Your task to perform on an android device: turn on the 24-hour format for clock Image 0: 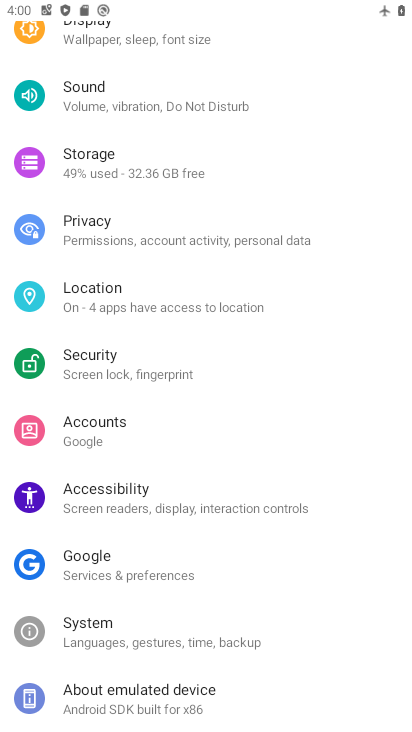
Step 0: press home button
Your task to perform on an android device: turn on the 24-hour format for clock Image 1: 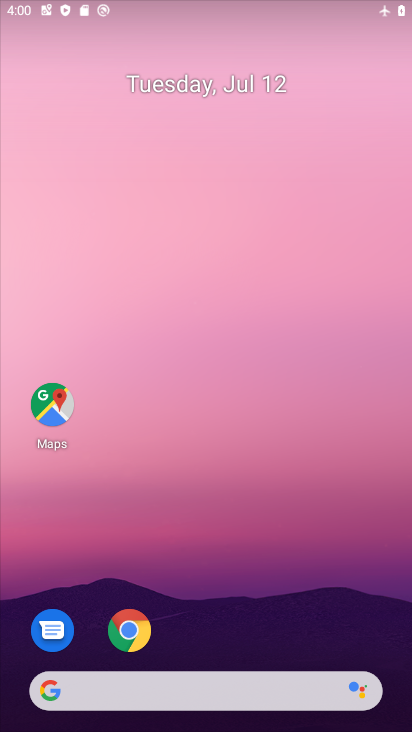
Step 1: drag from (280, 699) to (355, 8)
Your task to perform on an android device: turn on the 24-hour format for clock Image 2: 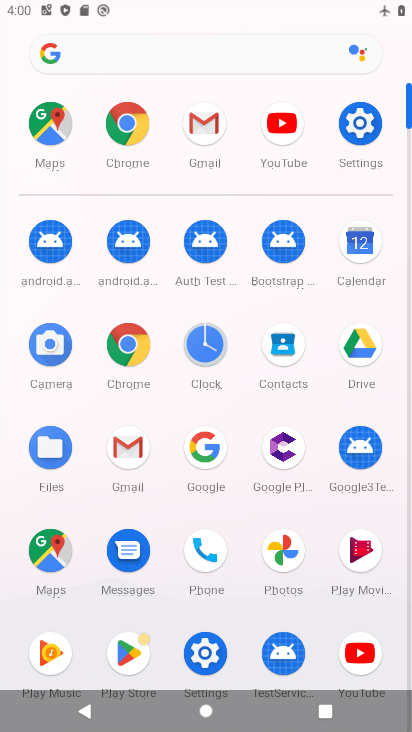
Step 2: click (204, 358)
Your task to perform on an android device: turn on the 24-hour format for clock Image 3: 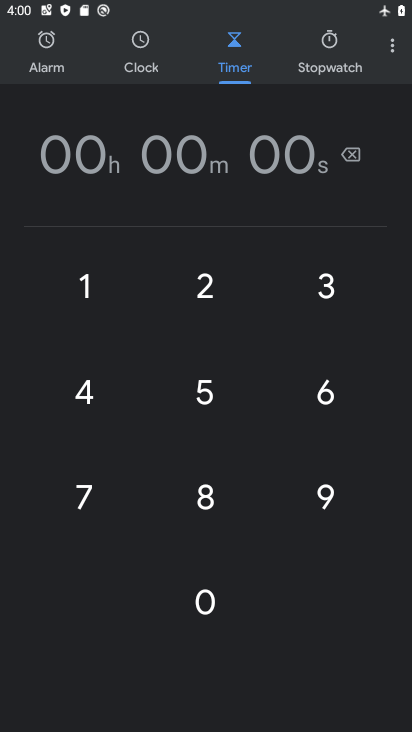
Step 3: click (390, 47)
Your task to perform on an android device: turn on the 24-hour format for clock Image 4: 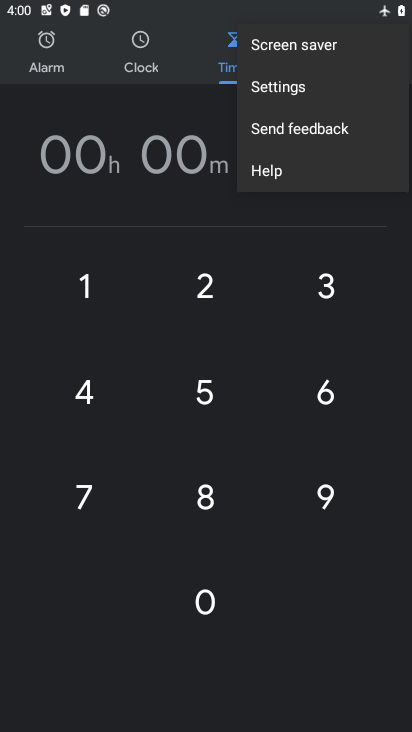
Step 4: click (293, 91)
Your task to perform on an android device: turn on the 24-hour format for clock Image 5: 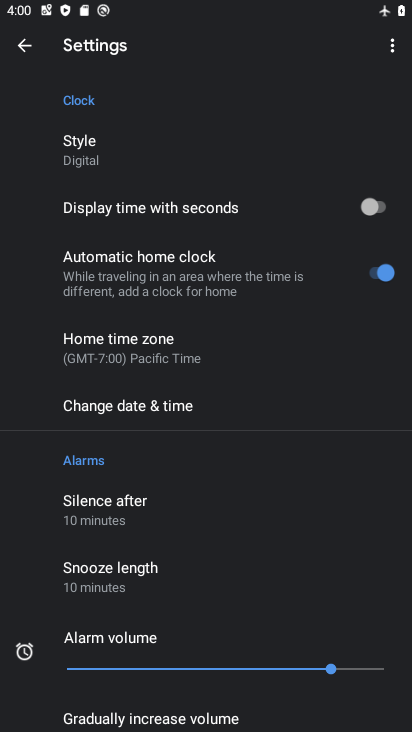
Step 5: click (152, 418)
Your task to perform on an android device: turn on the 24-hour format for clock Image 6: 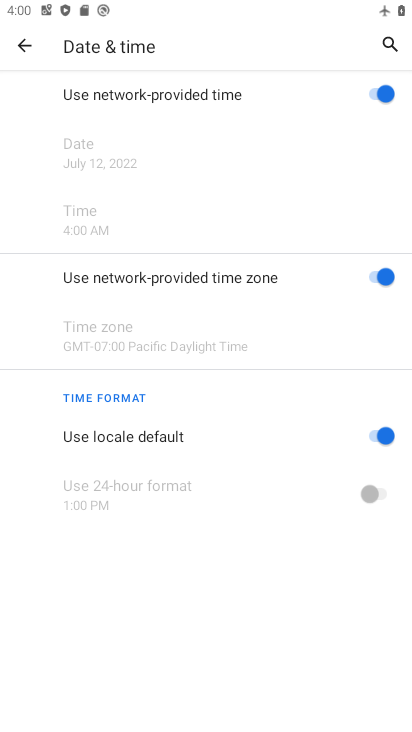
Step 6: click (376, 436)
Your task to perform on an android device: turn on the 24-hour format for clock Image 7: 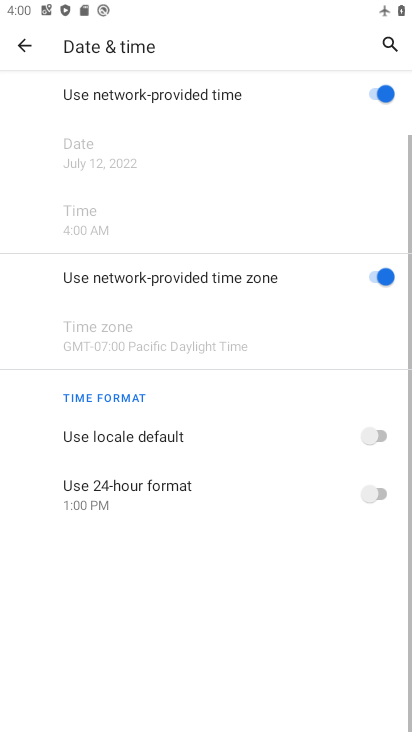
Step 7: click (383, 494)
Your task to perform on an android device: turn on the 24-hour format for clock Image 8: 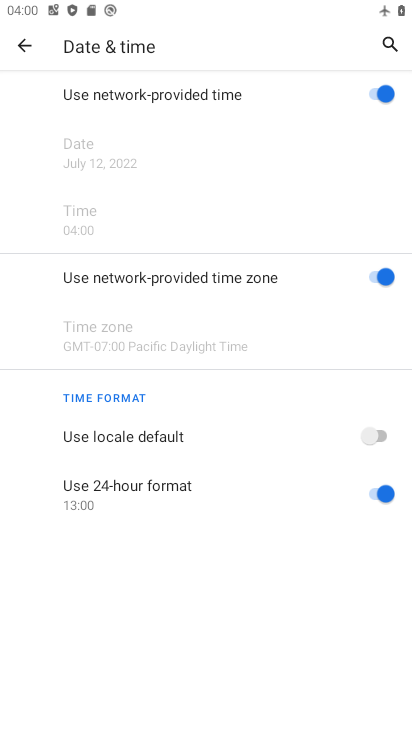
Step 8: task complete